Your task to perform on an android device: Show me popular videos on Youtube Image 0: 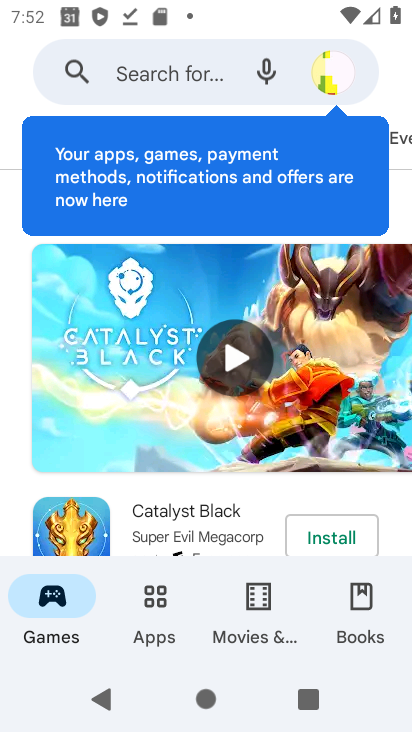
Step 0: press home button
Your task to perform on an android device: Show me popular videos on Youtube Image 1: 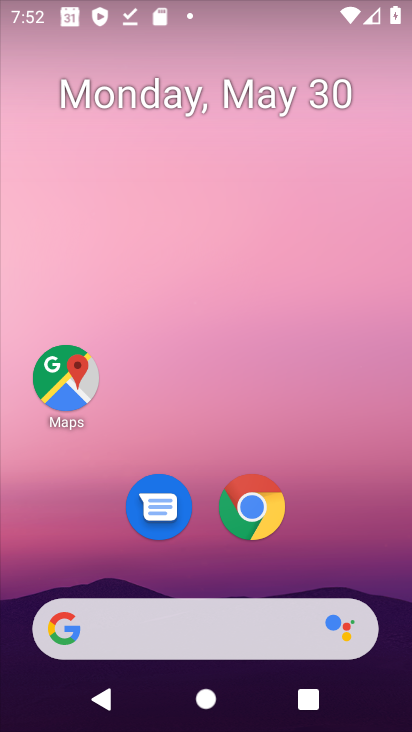
Step 1: drag from (301, 503) to (309, 128)
Your task to perform on an android device: Show me popular videos on Youtube Image 2: 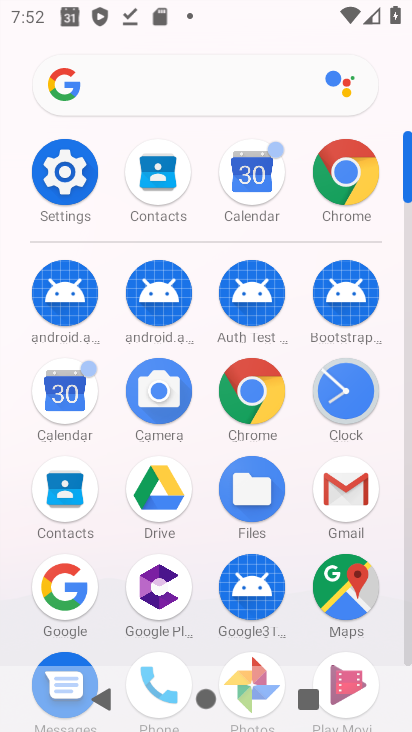
Step 2: drag from (172, 543) to (172, 186)
Your task to perform on an android device: Show me popular videos on Youtube Image 3: 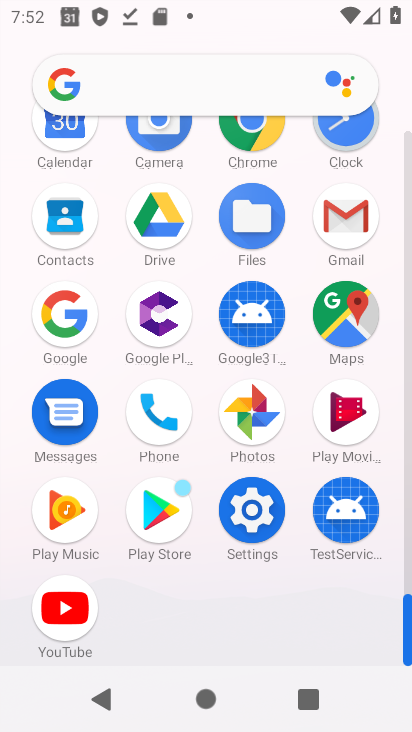
Step 3: drag from (206, 625) to (222, 182)
Your task to perform on an android device: Show me popular videos on Youtube Image 4: 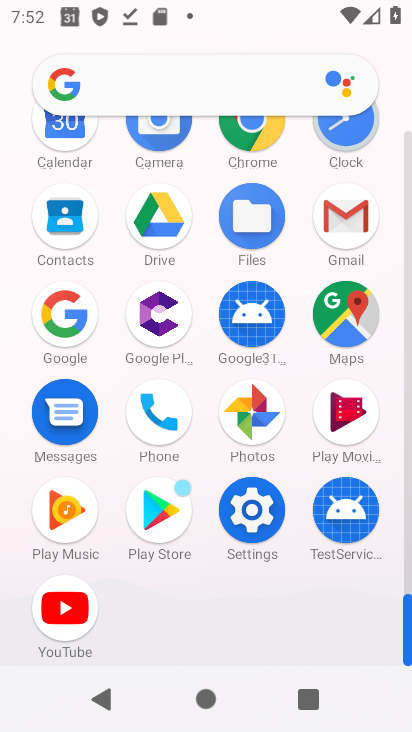
Step 4: click (46, 616)
Your task to perform on an android device: Show me popular videos on Youtube Image 5: 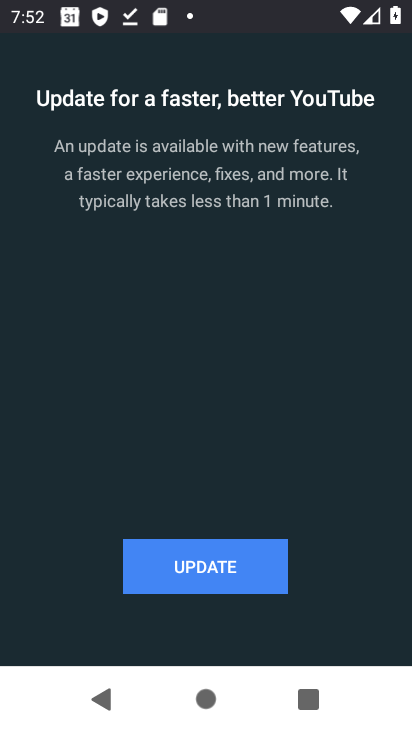
Step 5: click (234, 556)
Your task to perform on an android device: Show me popular videos on Youtube Image 6: 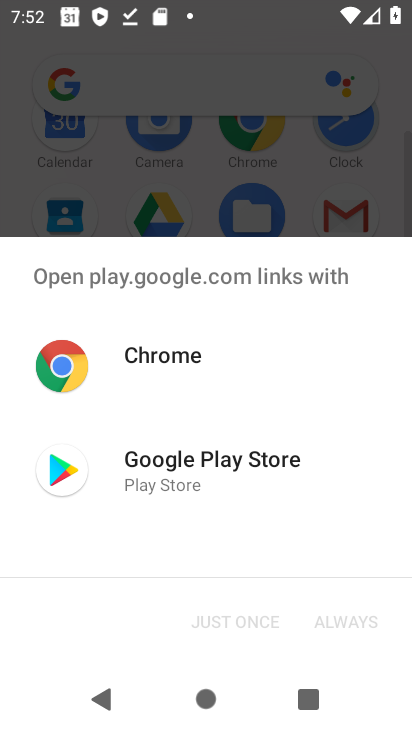
Step 6: click (206, 469)
Your task to perform on an android device: Show me popular videos on Youtube Image 7: 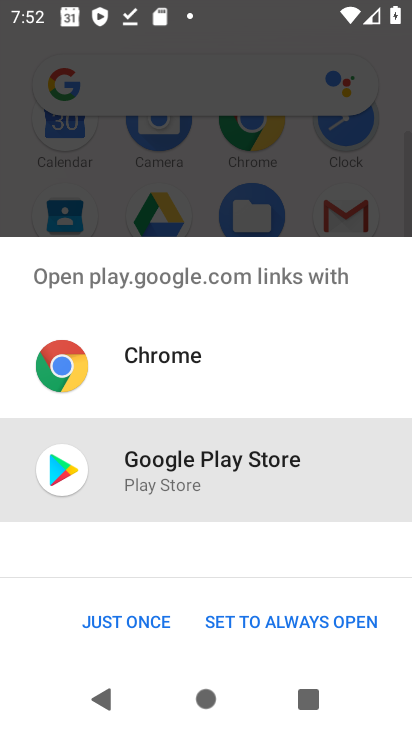
Step 7: click (126, 620)
Your task to perform on an android device: Show me popular videos on Youtube Image 8: 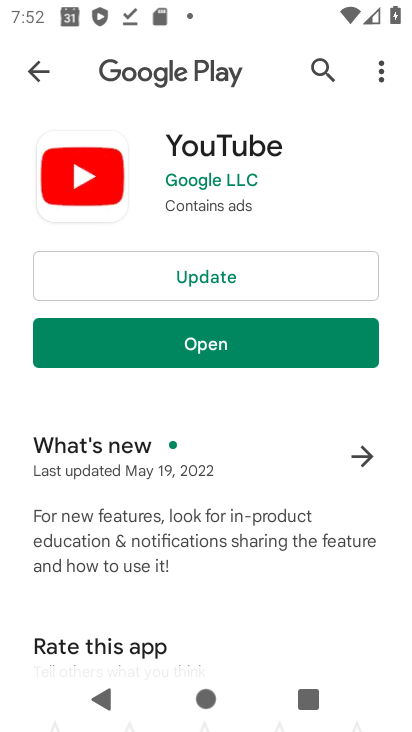
Step 8: click (167, 286)
Your task to perform on an android device: Show me popular videos on Youtube Image 9: 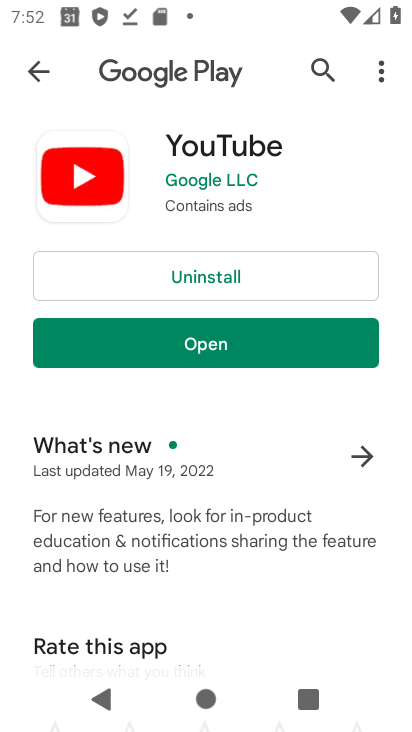
Step 9: click (191, 343)
Your task to perform on an android device: Show me popular videos on Youtube Image 10: 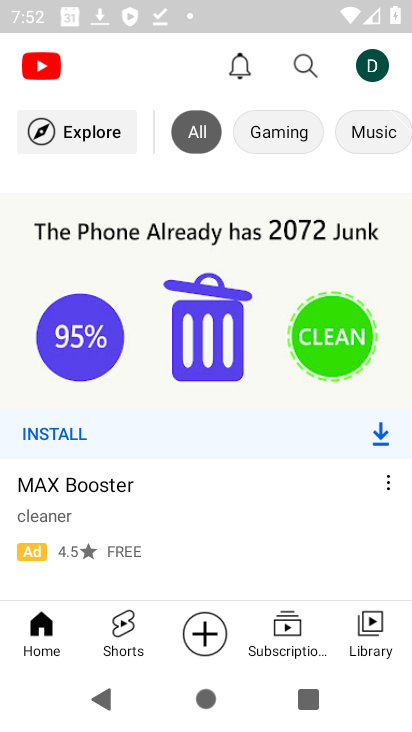
Step 10: task complete